Your task to perform on an android device: set an alarm Image 0: 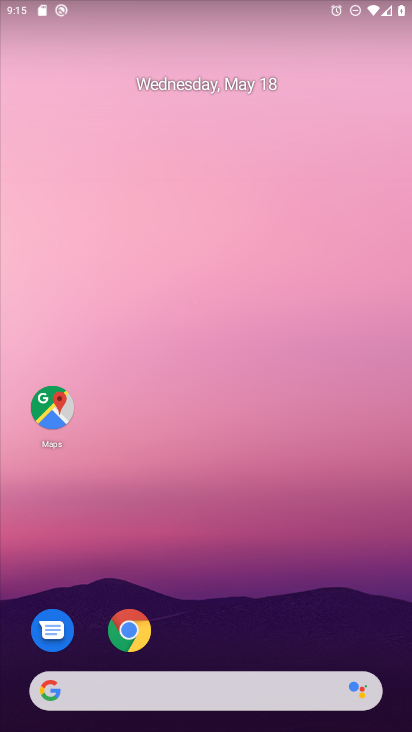
Step 0: drag from (206, 659) to (184, 1)
Your task to perform on an android device: set an alarm Image 1: 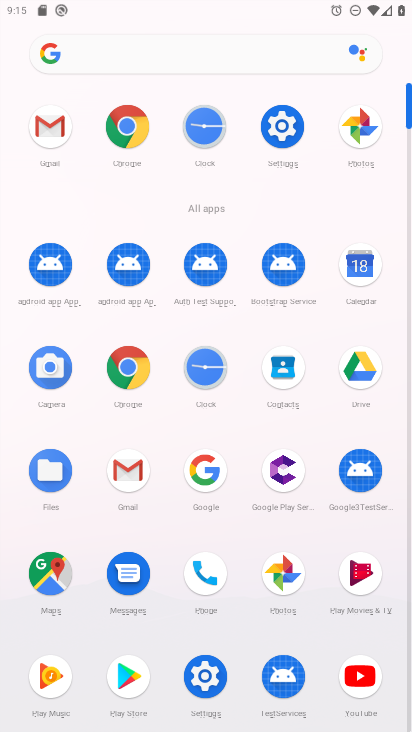
Step 1: click (197, 374)
Your task to perform on an android device: set an alarm Image 2: 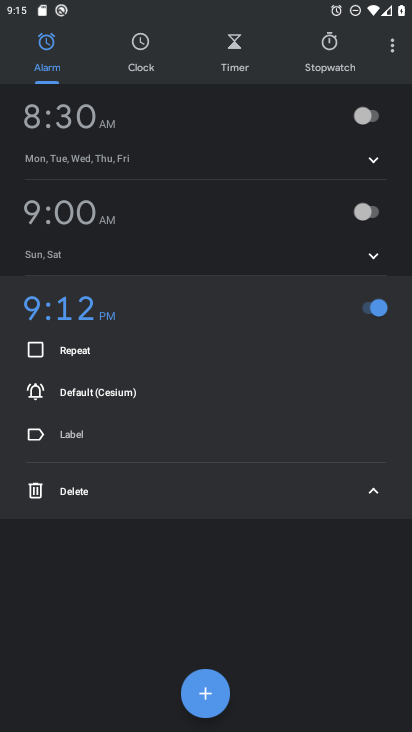
Step 2: click (366, 488)
Your task to perform on an android device: set an alarm Image 3: 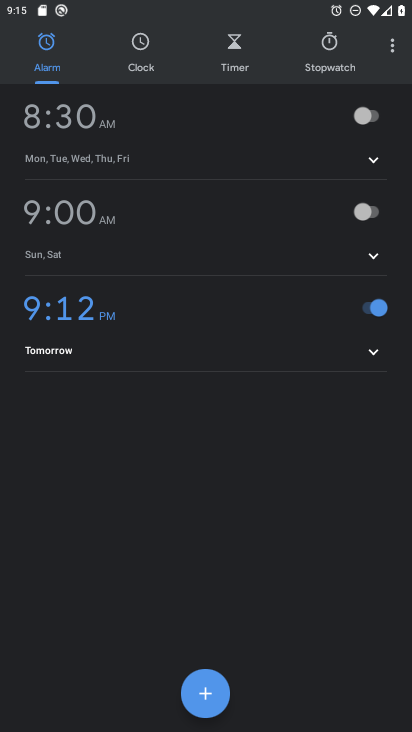
Step 3: click (201, 698)
Your task to perform on an android device: set an alarm Image 4: 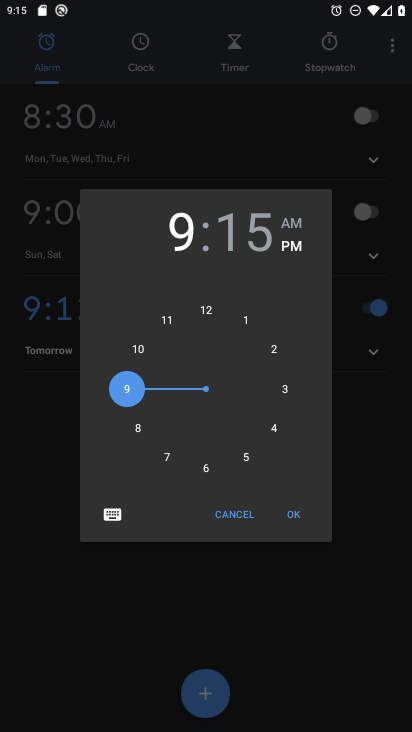
Step 4: click (290, 518)
Your task to perform on an android device: set an alarm Image 5: 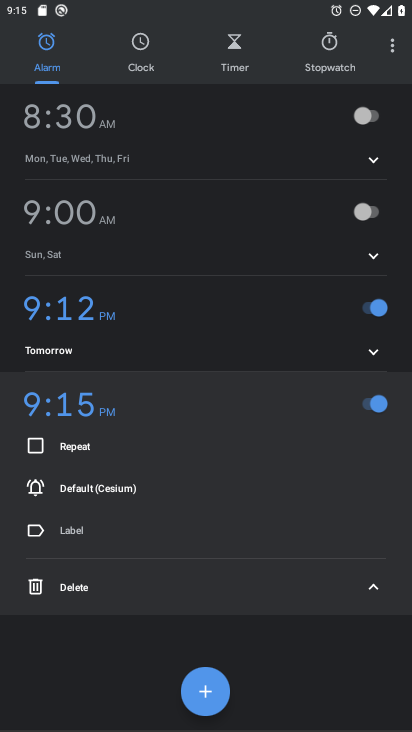
Step 5: task complete